Your task to perform on an android device: toggle notifications settings in the gmail app Image 0: 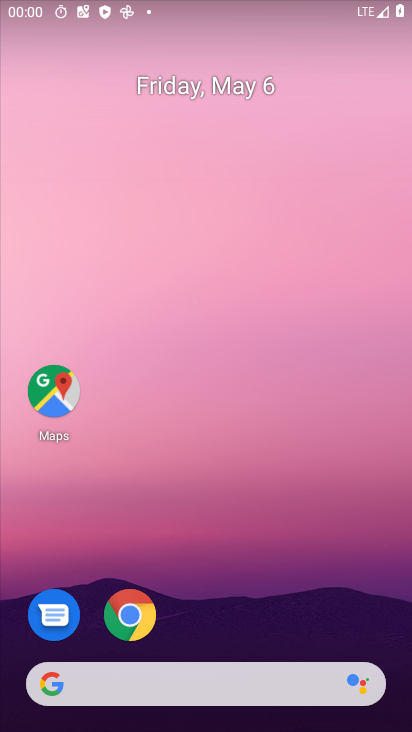
Step 0: drag from (236, 604) to (246, 118)
Your task to perform on an android device: toggle notifications settings in the gmail app Image 1: 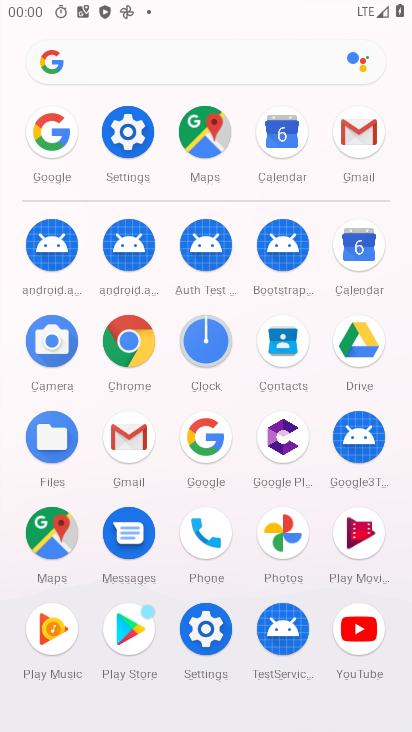
Step 1: click (364, 138)
Your task to perform on an android device: toggle notifications settings in the gmail app Image 2: 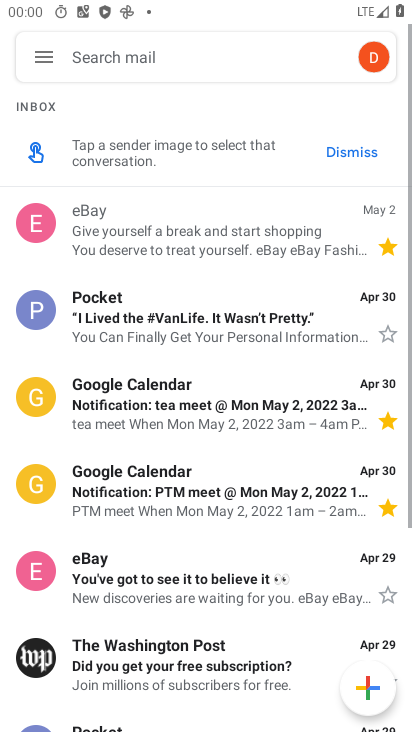
Step 2: click (60, 54)
Your task to perform on an android device: toggle notifications settings in the gmail app Image 3: 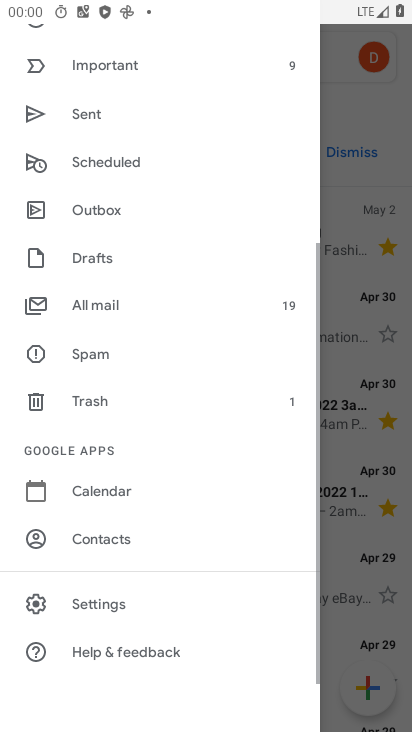
Step 3: drag from (149, 204) to (198, 659)
Your task to perform on an android device: toggle notifications settings in the gmail app Image 4: 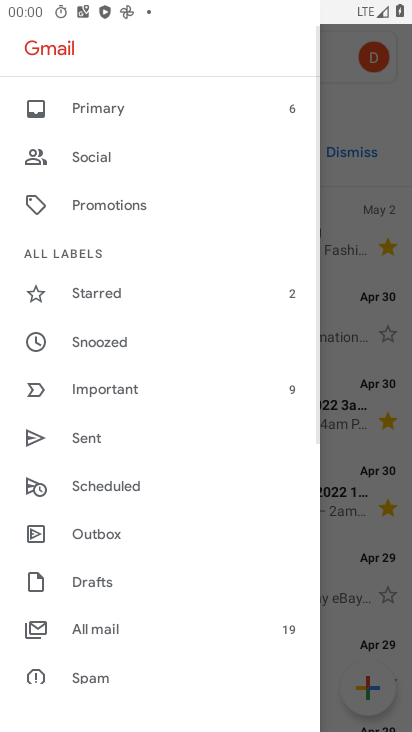
Step 4: drag from (134, 578) to (154, 81)
Your task to perform on an android device: toggle notifications settings in the gmail app Image 5: 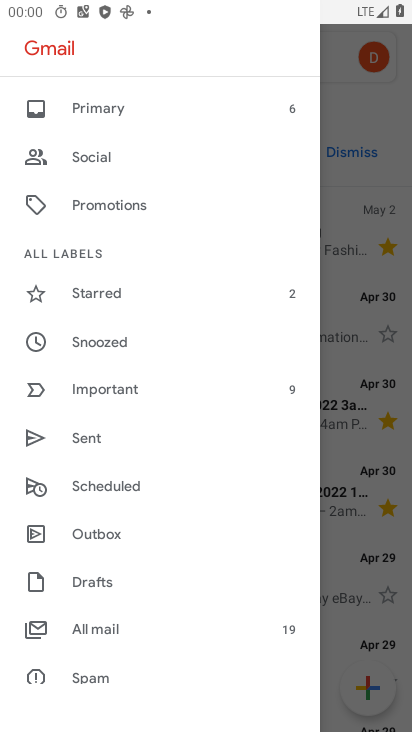
Step 5: drag from (168, 539) to (253, 92)
Your task to perform on an android device: toggle notifications settings in the gmail app Image 6: 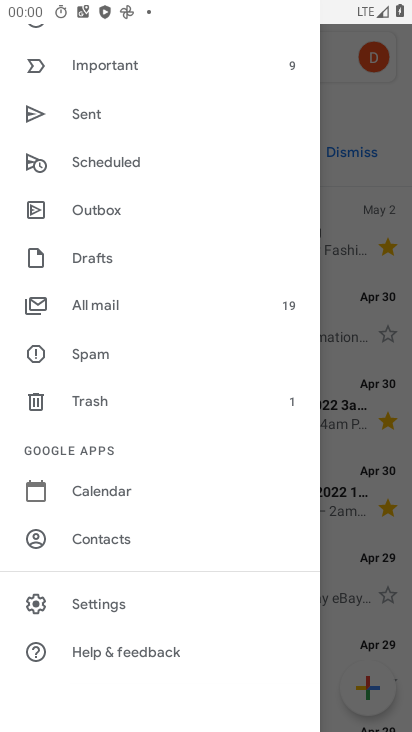
Step 6: click (102, 603)
Your task to perform on an android device: toggle notifications settings in the gmail app Image 7: 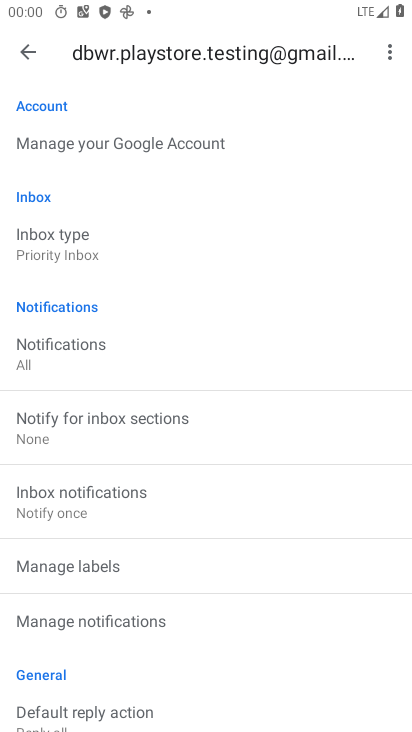
Step 7: click (63, 366)
Your task to perform on an android device: toggle notifications settings in the gmail app Image 8: 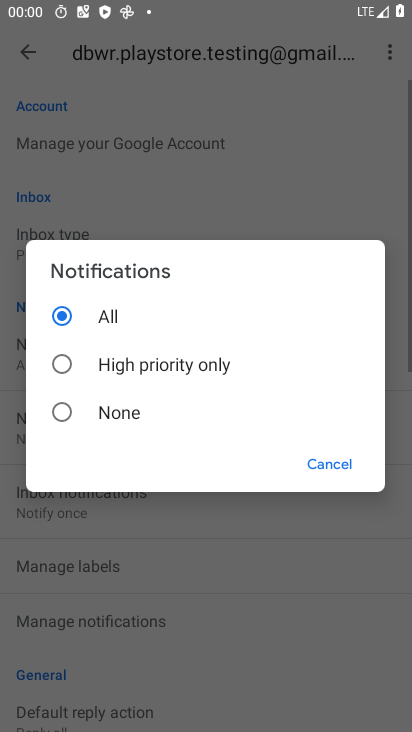
Step 8: click (68, 420)
Your task to perform on an android device: toggle notifications settings in the gmail app Image 9: 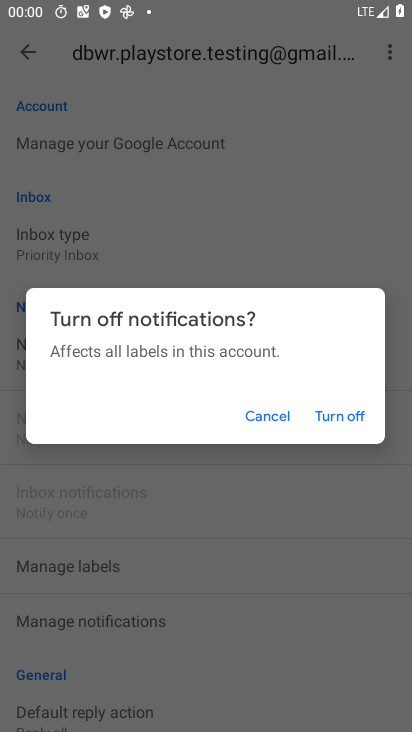
Step 9: click (334, 421)
Your task to perform on an android device: toggle notifications settings in the gmail app Image 10: 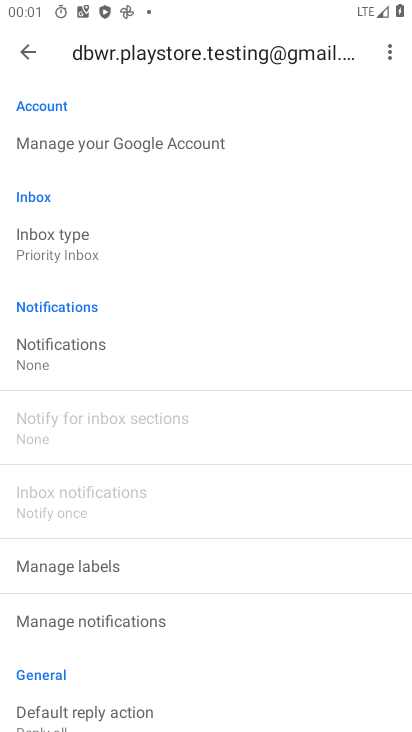
Step 10: task complete